Your task to perform on an android device: Go to display settings Image 0: 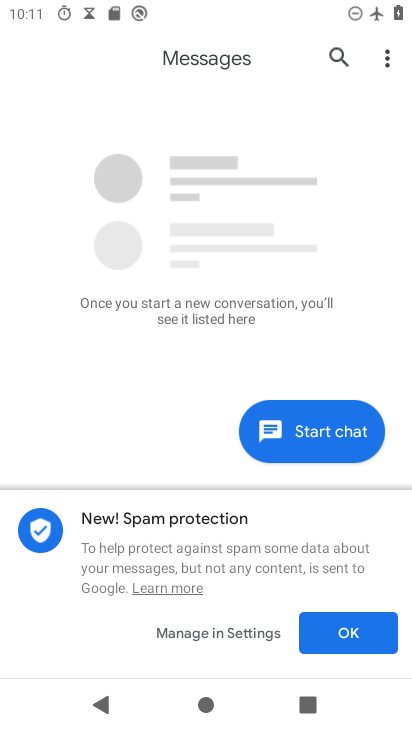
Step 0: drag from (343, 586) to (345, 389)
Your task to perform on an android device: Go to display settings Image 1: 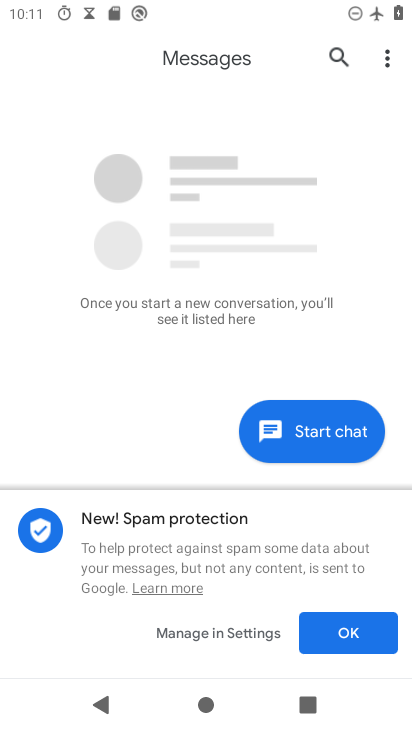
Step 1: press home button
Your task to perform on an android device: Go to display settings Image 2: 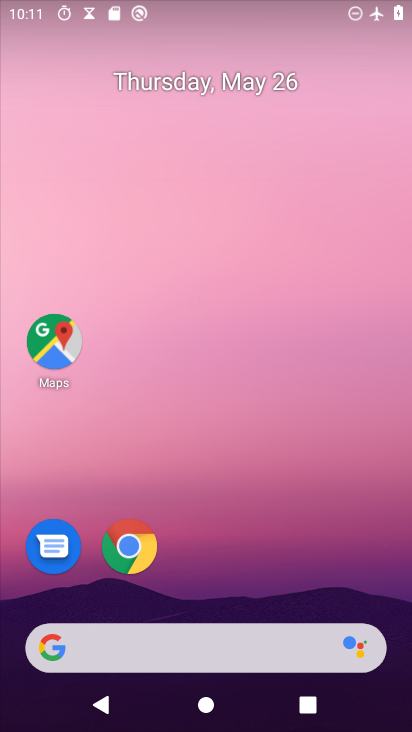
Step 2: drag from (364, 567) to (331, 147)
Your task to perform on an android device: Go to display settings Image 3: 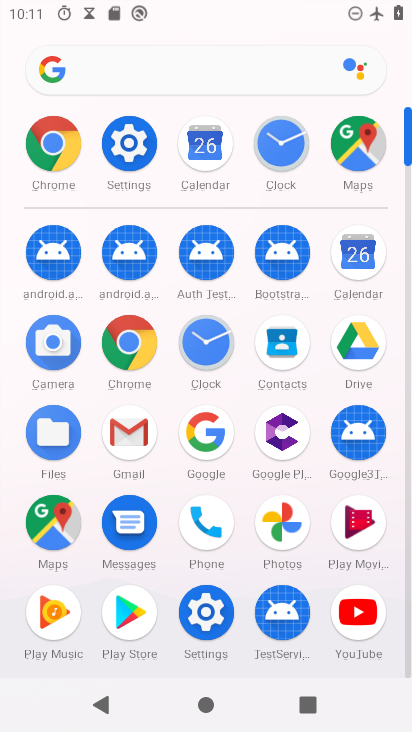
Step 3: click (215, 624)
Your task to perform on an android device: Go to display settings Image 4: 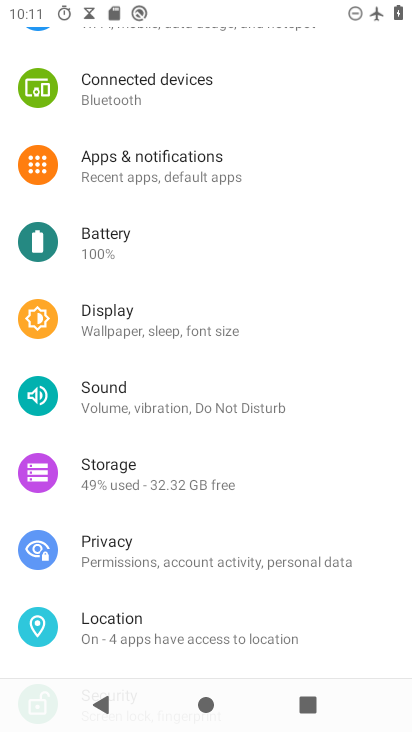
Step 4: drag from (209, 614) to (283, 281)
Your task to perform on an android device: Go to display settings Image 5: 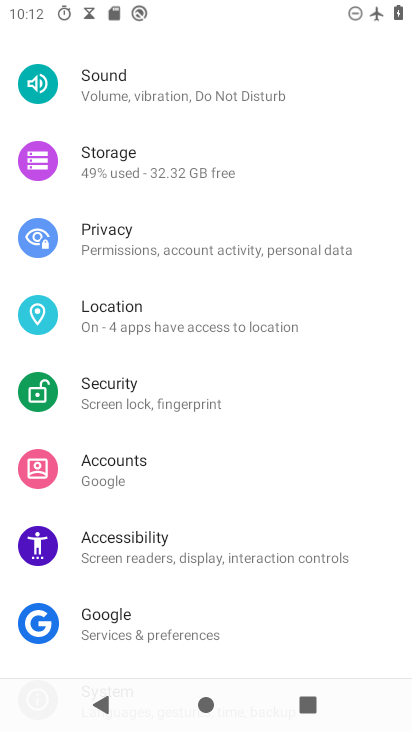
Step 5: drag from (137, 145) to (141, 529)
Your task to perform on an android device: Go to display settings Image 6: 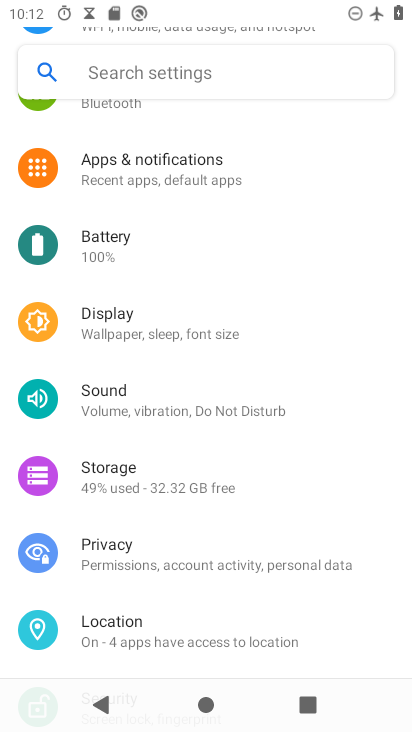
Step 6: click (136, 332)
Your task to perform on an android device: Go to display settings Image 7: 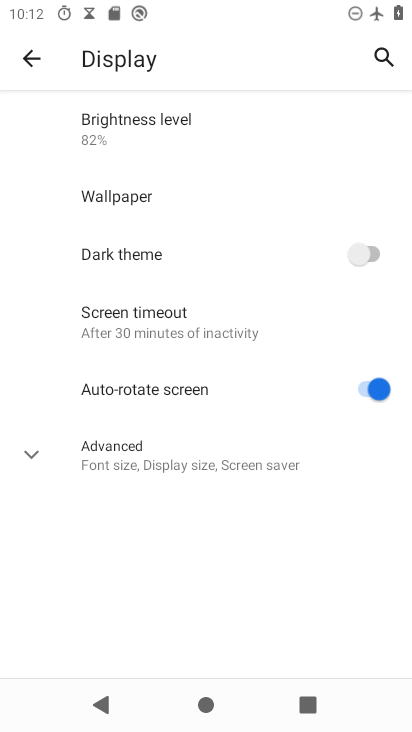
Step 7: click (36, 444)
Your task to perform on an android device: Go to display settings Image 8: 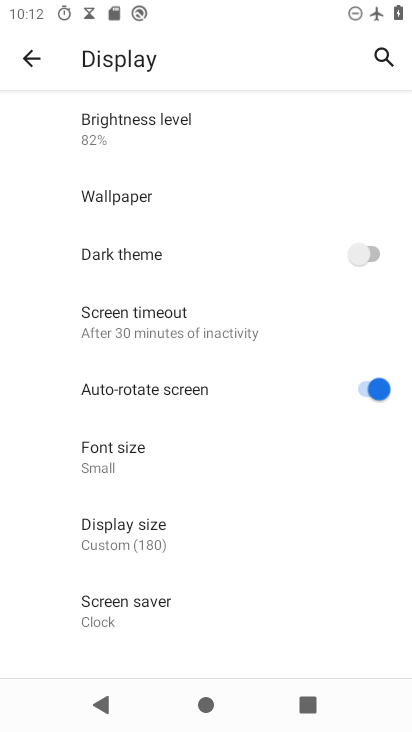
Step 8: task complete